Your task to perform on an android device: Go to sound settings Image 0: 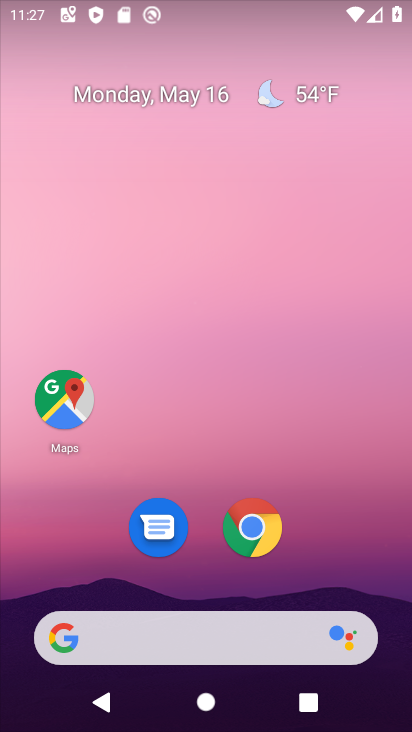
Step 0: drag from (305, 652) to (248, 279)
Your task to perform on an android device: Go to sound settings Image 1: 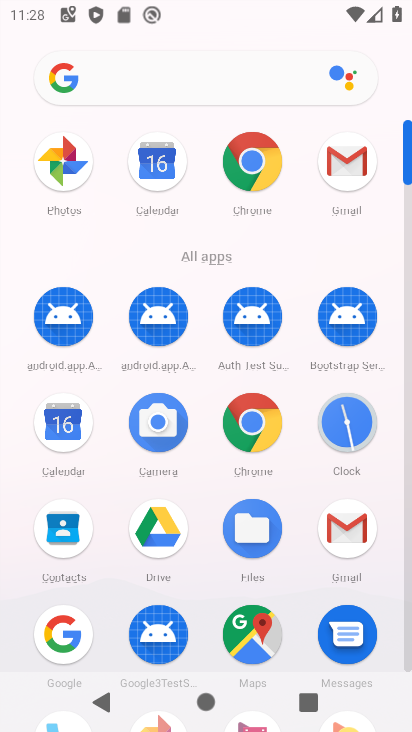
Step 1: drag from (290, 460) to (319, 283)
Your task to perform on an android device: Go to sound settings Image 2: 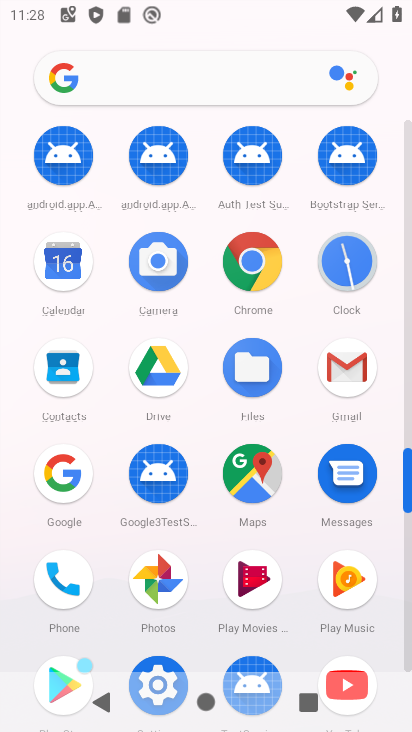
Step 2: click (166, 658)
Your task to perform on an android device: Go to sound settings Image 3: 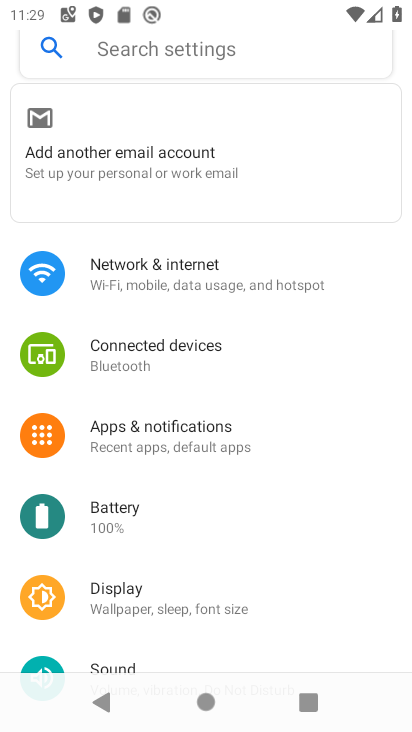
Step 3: drag from (146, 185) to (160, 225)
Your task to perform on an android device: Go to sound settings Image 4: 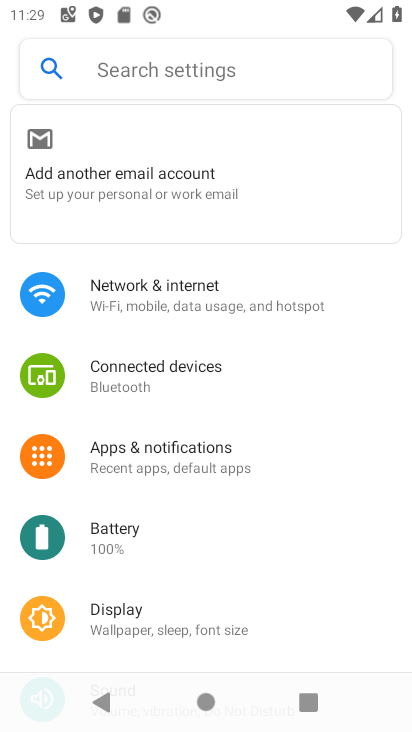
Step 4: click (129, 81)
Your task to perform on an android device: Go to sound settings Image 5: 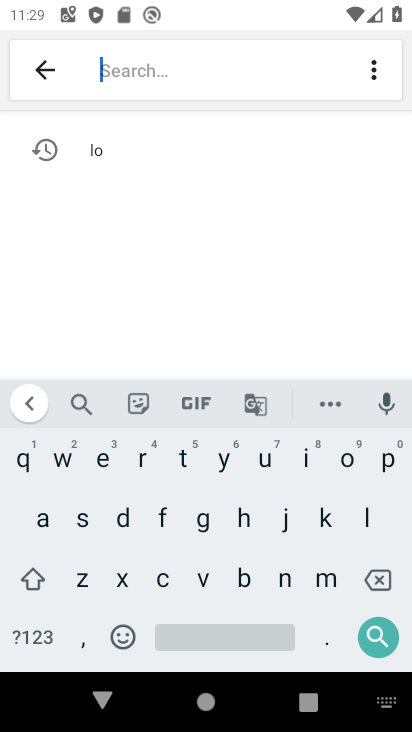
Step 5: click (82, 517)
Your task to perform on an android device: Go to sound settings Image 6: 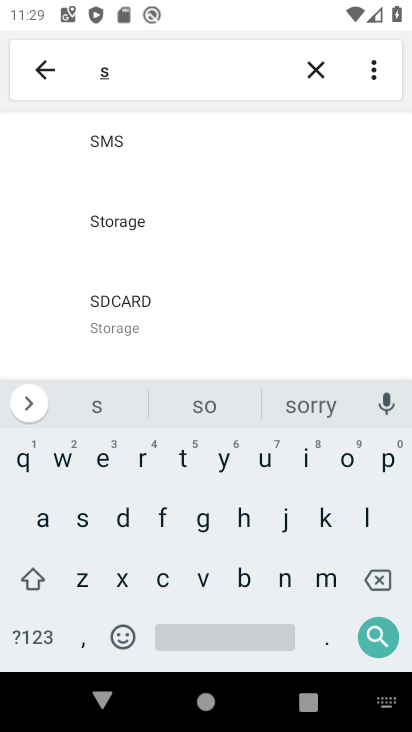
Step 6: click (345, 460)
Your task to perform on an android device: Go to sound settings Image 7: 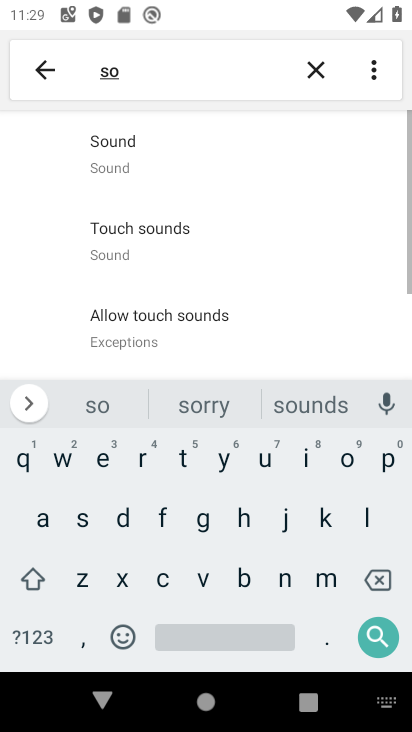
Step 7: click (268, 457)
Your task to perform on an android device: Go to sound settings Image 8: 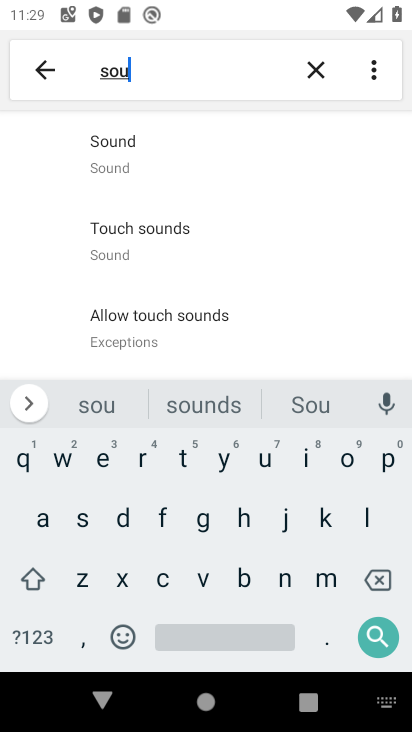
Step 8: click (114, 159)
Your task to perform on an android device: Go to sound settings Image 9: 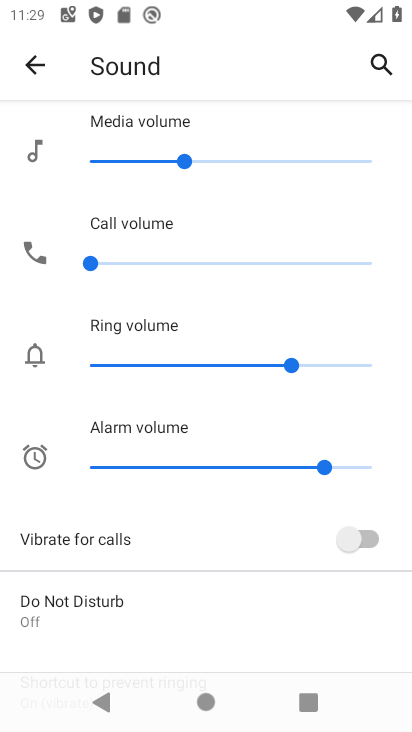
Step 9: task complete